Your task to perform on an android device: see tabs open on other devices in the chrome app Image 0: 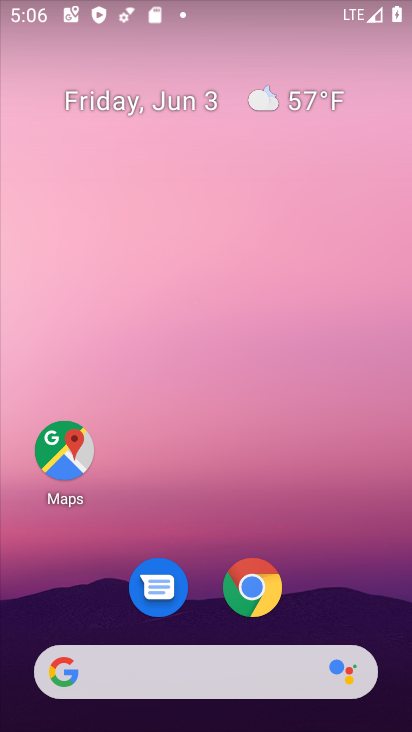
Step 0: click (209, 162)
Your task to perform on an android device: see tabs open on other devices in the chrome app Image 1: 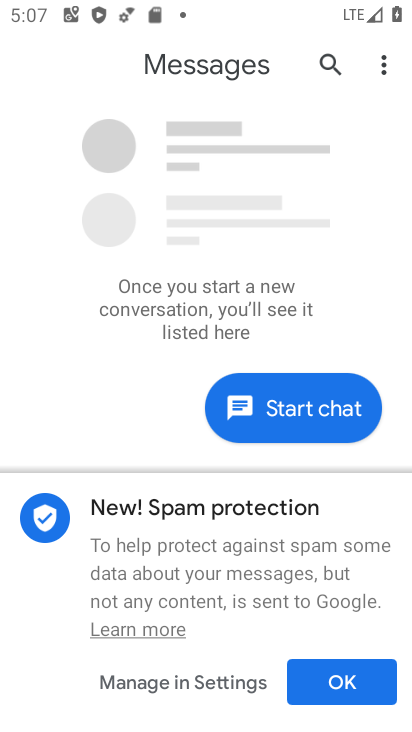
Step 1: press home button
Your task to perform on an android device: see tabs open on other devices in the chrome app Image 2: 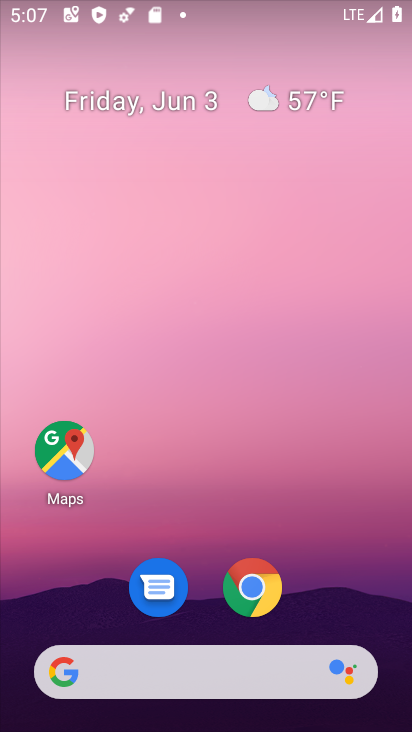
Step 2: click (234, 561)
Your task to perform on an android device: see tabs open on other devices in the chrome app Image 3: 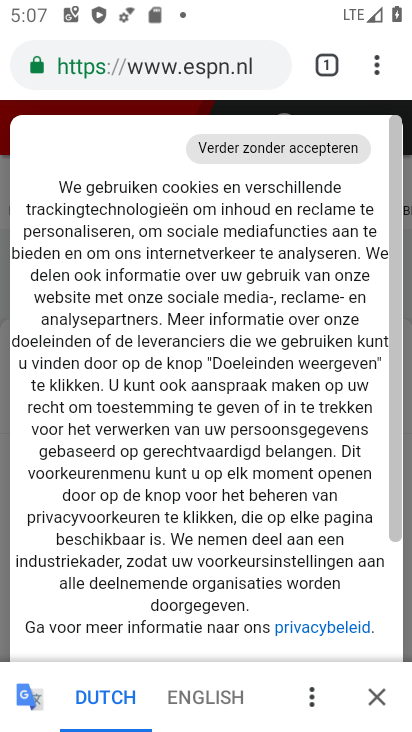
Step 3: click (390, 73)
Your task to perform on an android device: see tabs open on other devices in the chrome app Image 4: 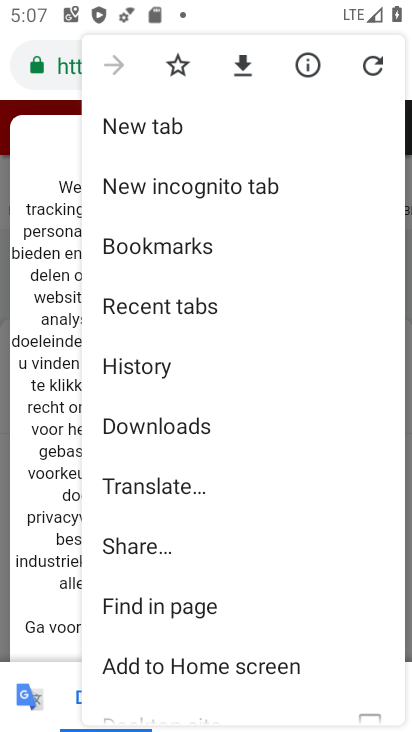
Step 4: click (169, 323)
Your task to perform on an android device: see tabs open on other devices in the chrome app Image 5: 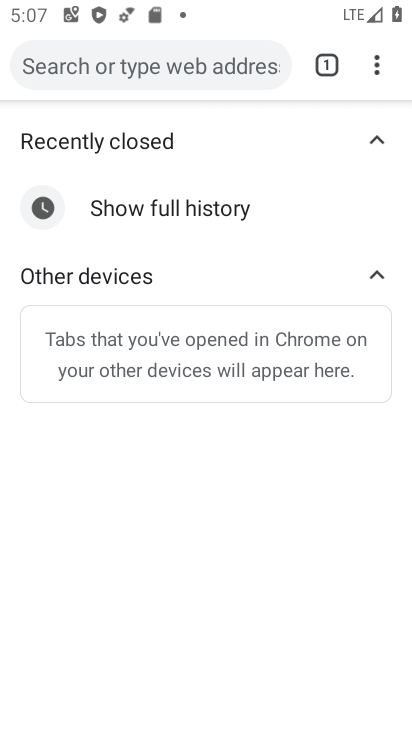
Step 5: task complete